Your task to perform on an android device: Search for vegetarian restaurants on Maps Image 0: 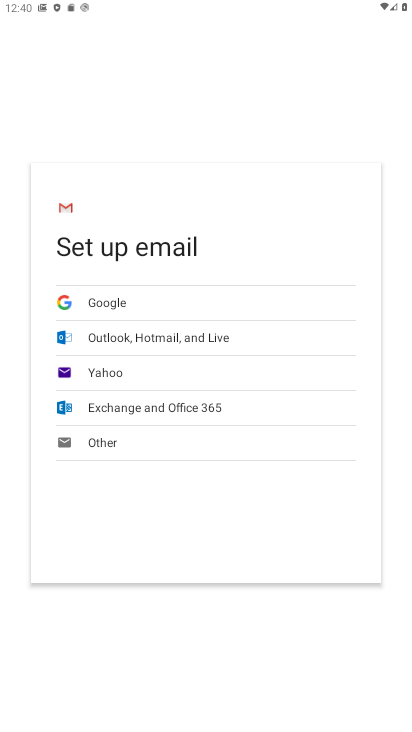
Step 0: press home button
Your task to perform on an android device: Search for vegetarian restaurants on Maps Image 1: 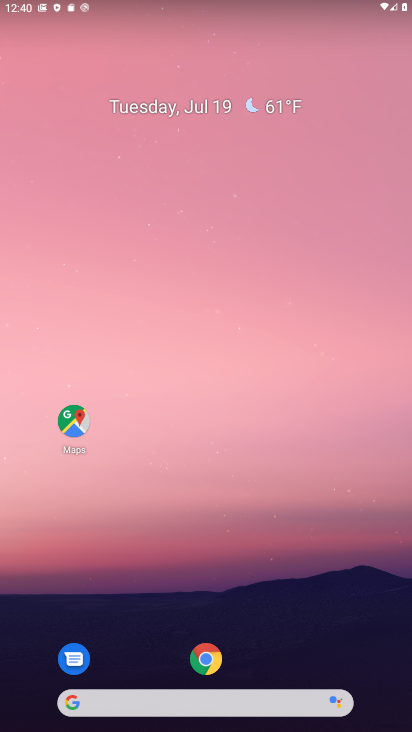
Step 1: click (68, 416)
Your task to perform on an android device: Search for vegetarian restaurants on Maps Image 2: 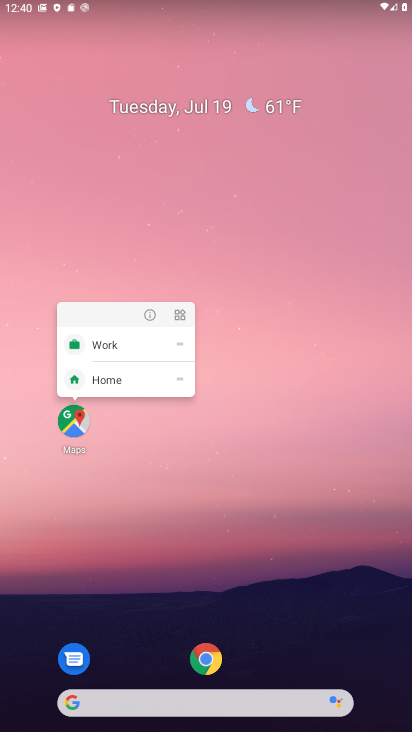
Step 2: click (69, 415)
Your task to perform on an android device: Search for vegetarian restaurants on Maps Image 3: 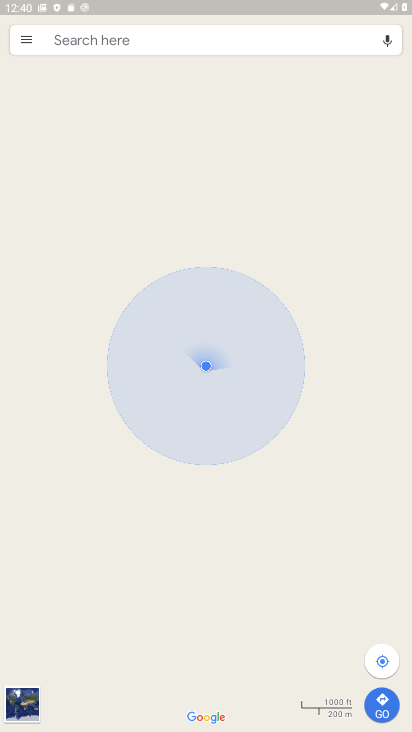
Step 3: click (116, 42)
Your task to perform on an android device: Search for vegetarian restaurants on Maps Image 4: 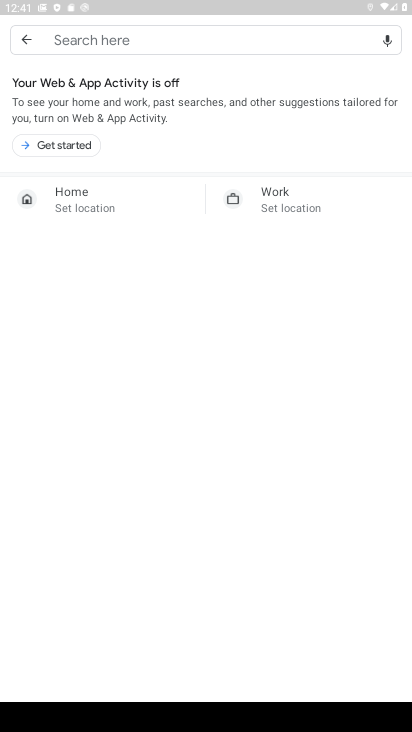
Step 4: type "vegetarian restaurants "
Your task to perform on an android device: Search for vegetarian restaurants on Maps Image 5: 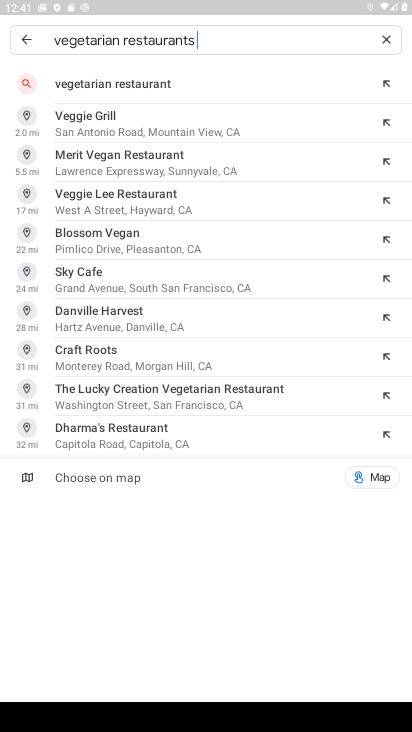
Step 5: click (144, 87)
Your task to perform on an android device: Search for vegetarian restaurants on Maps Image 6: 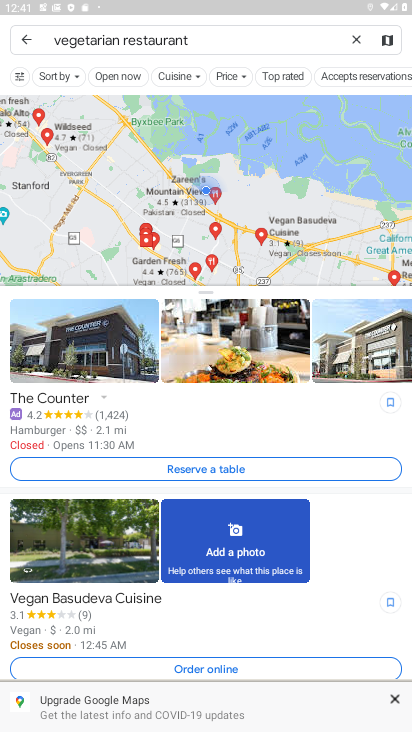
Step 6: task complete